Your task to perform on an android device: Check the news Image 0: 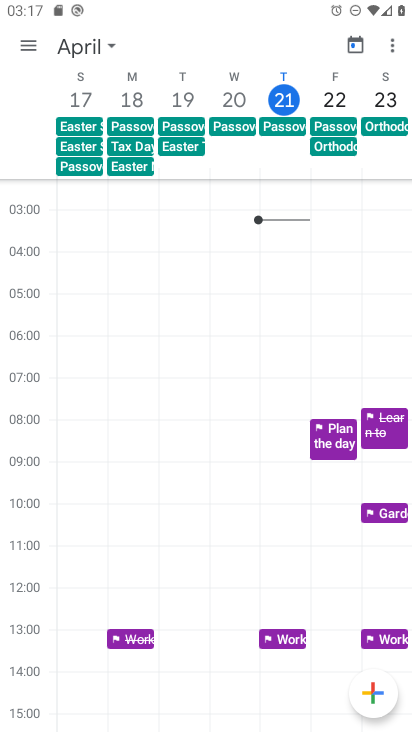
Step 0: press home button
Your task to perform on an android device: Check the news Image 1: 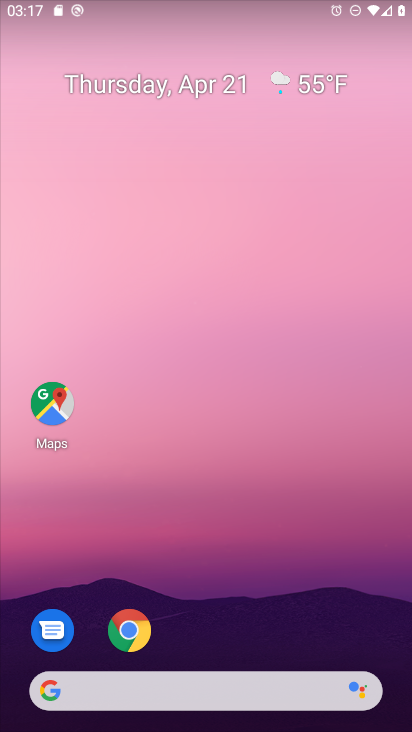
Step 1: click (223, 554)
Your task to perform on an android device: Check the news Image 2: 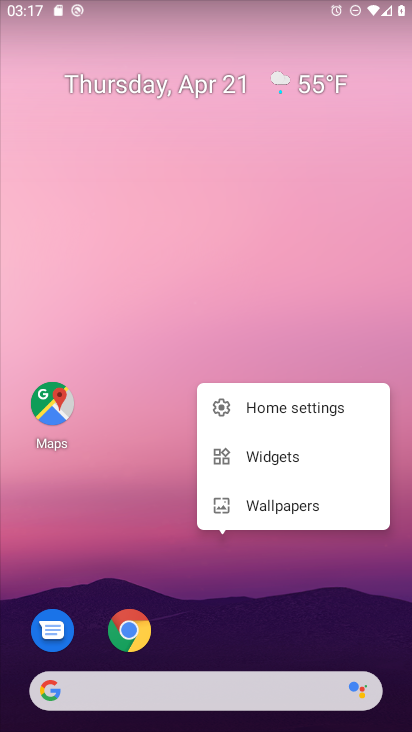
Step 2: click (137, 629)
Your task to perform on an android device: Check the news Image 3: 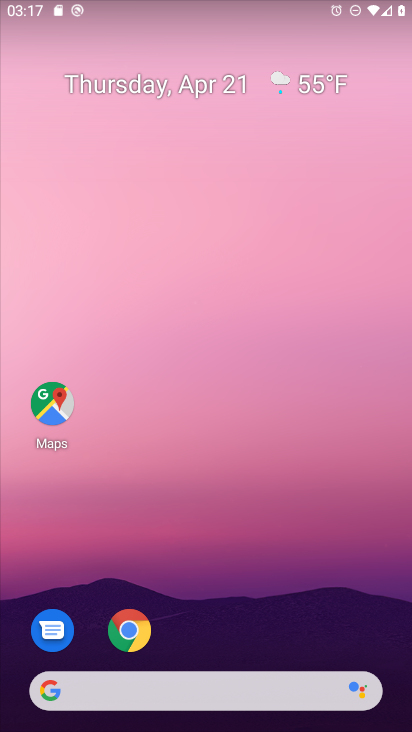
Step 3: click (122, 633)
Your task to perform on an android device: Check the news Image 4: 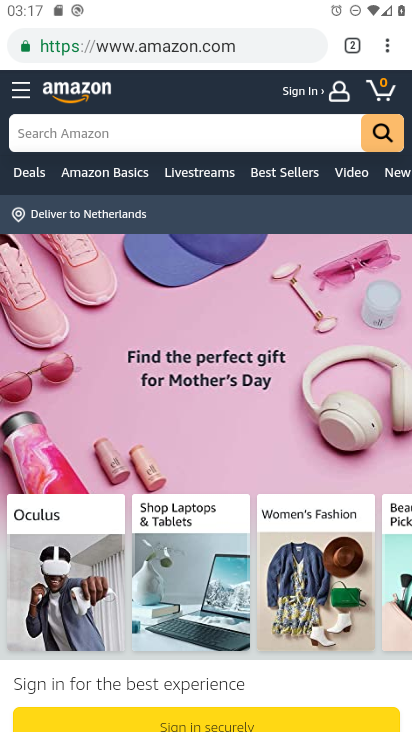
Step 4: click (352, 50)
Your task to perform on an android device: Check the news Image 5: 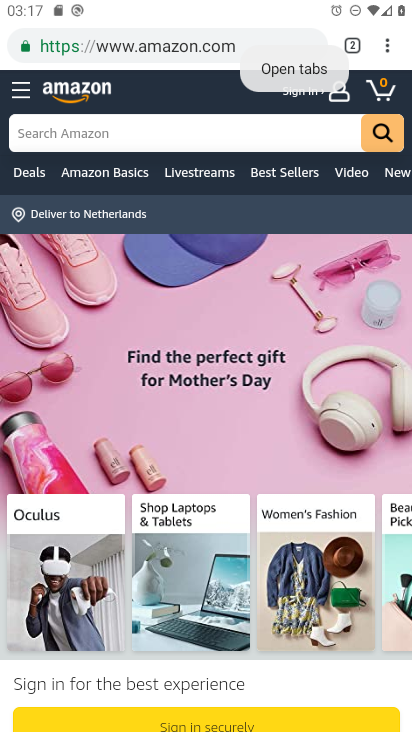
Step 5: click (268, 74)
Your task to perform on an android device: Check the news Image 6: 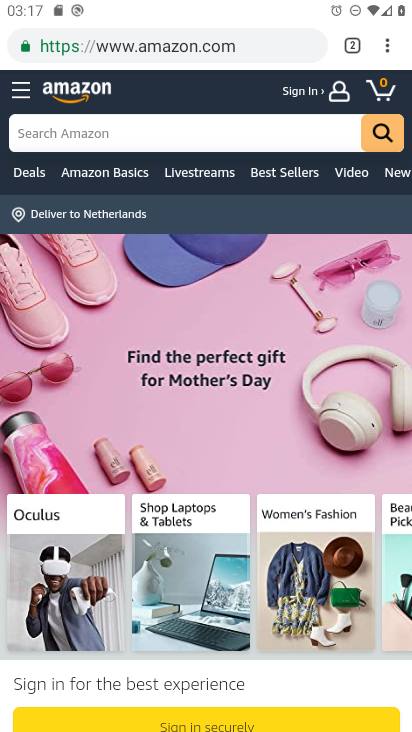
Step 6: click (350, 44)
Your task to perform on an android device: Check the news Image 7: 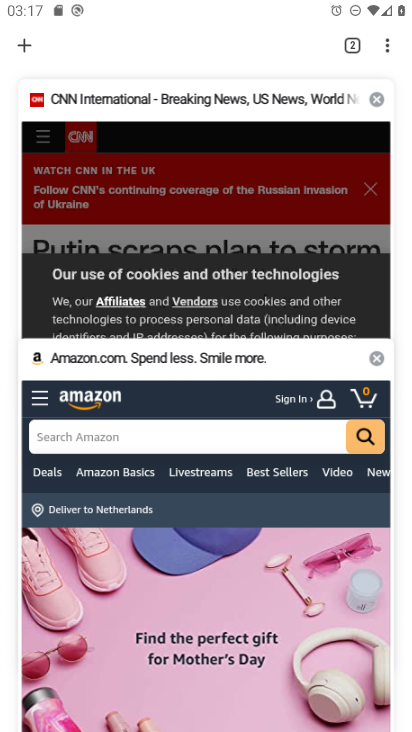
Step 7: click (23, 40)
Your task to perform on an android device: Check the news Image 8: 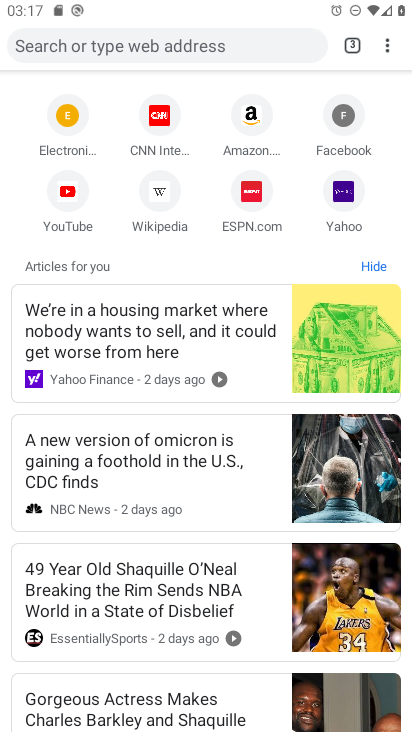
Step 8: task complete